Your task to perform on an android device: Open Maps and search for coffee Image 0: 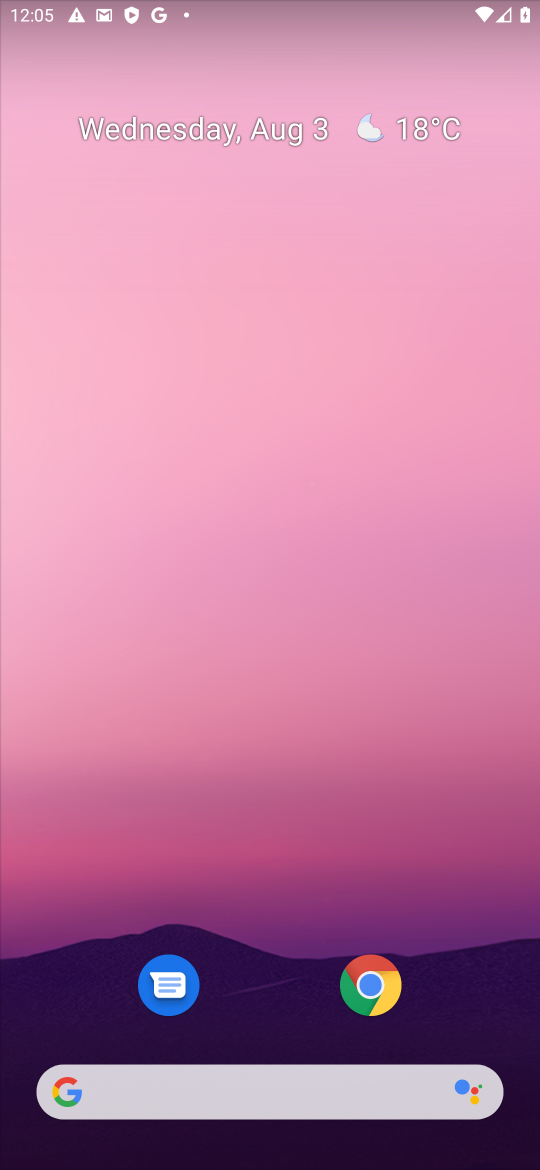
Step 0: drag from (244, 1031) to (256, 266)
Your task to perform on an android device: Open Maps and search for coffee Image 1: 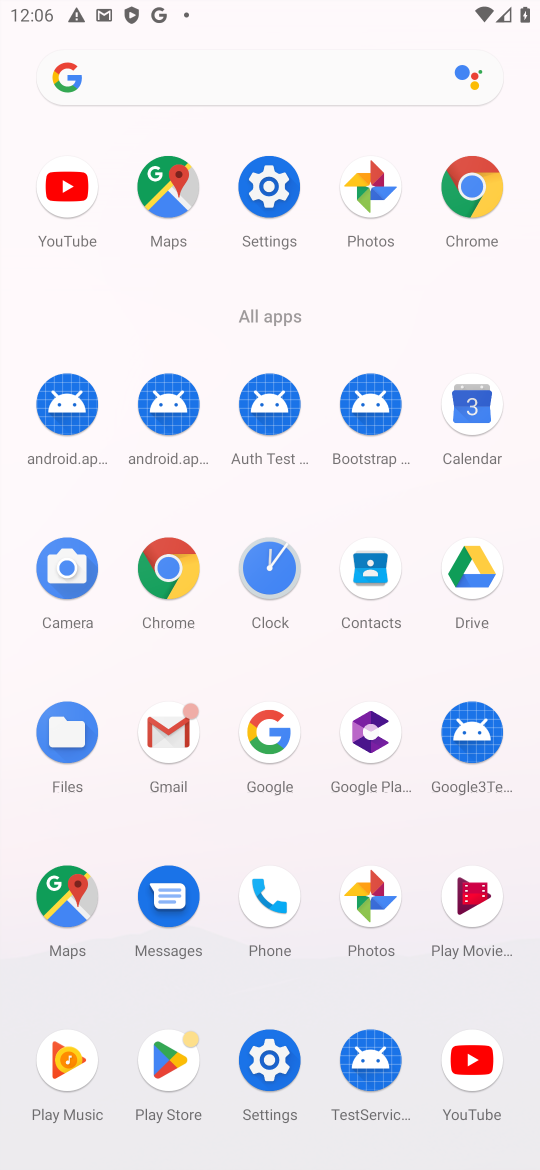
Step 1: click (75, 896)
Your task to perform on an android device: Open Maps and search for coffee Image 2: 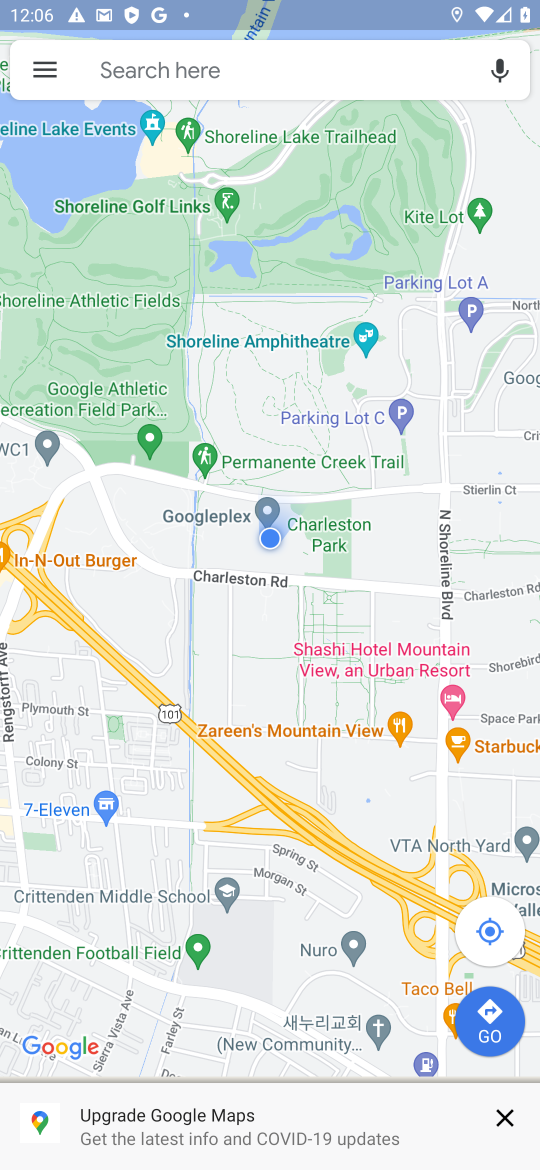
Step 2: task complete